Your task to perform on an android device: Add "macbook pro" to the cart on newegg.com, then select checkout. Image 0: 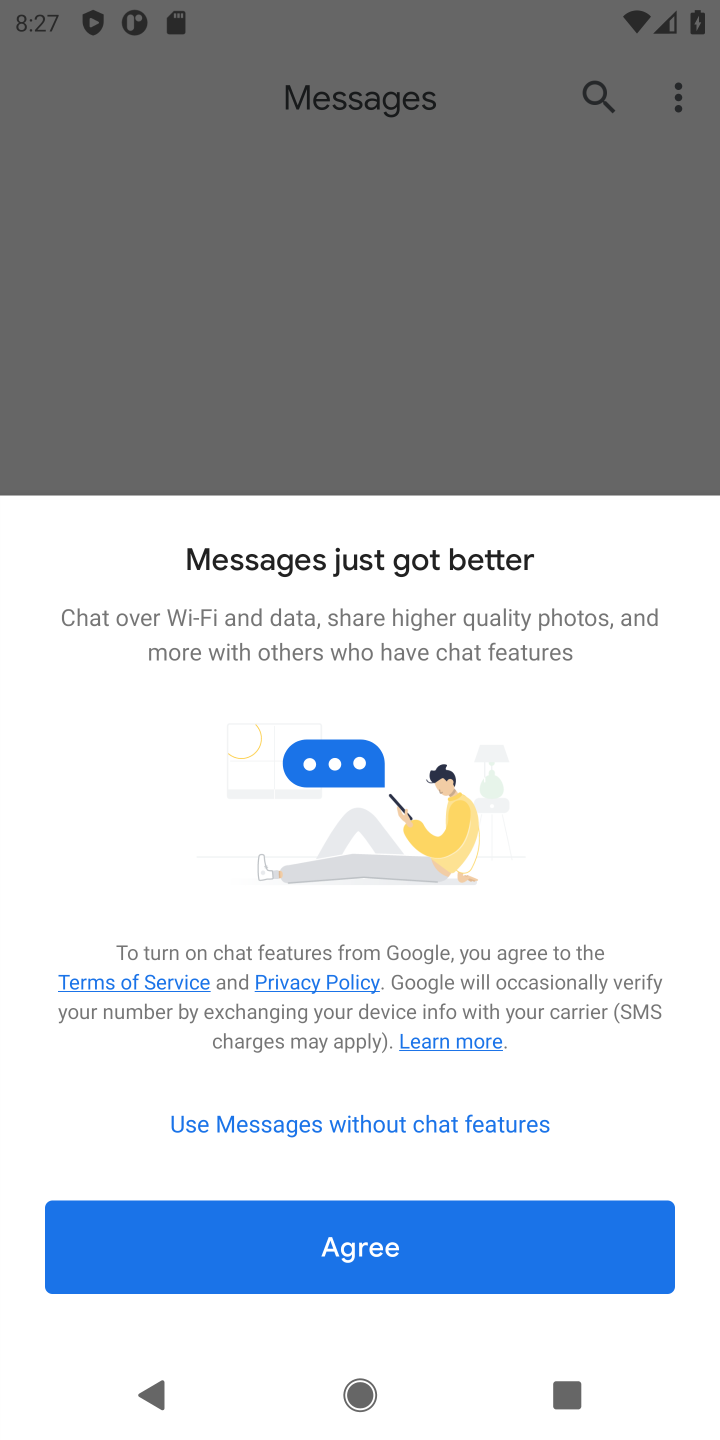
Step 0: press home button
Your task to perform on an android device: Add "macbook pro" to the cart on newegg.com, then select checkout. Image 1: 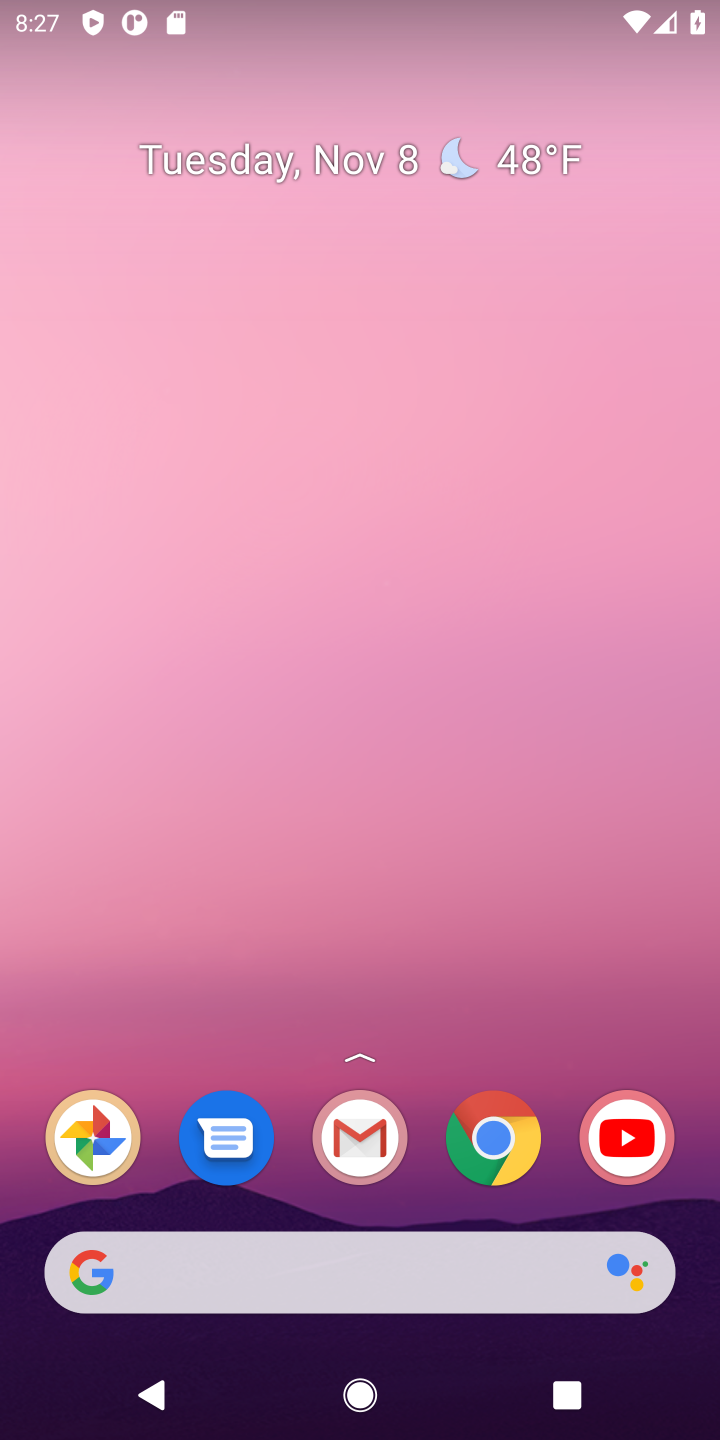
Step 1: click (476, 1133)
Your task to perform on an android device: Add "macbook pro" to the cart on newegg.com, then select checkout. Image 2: 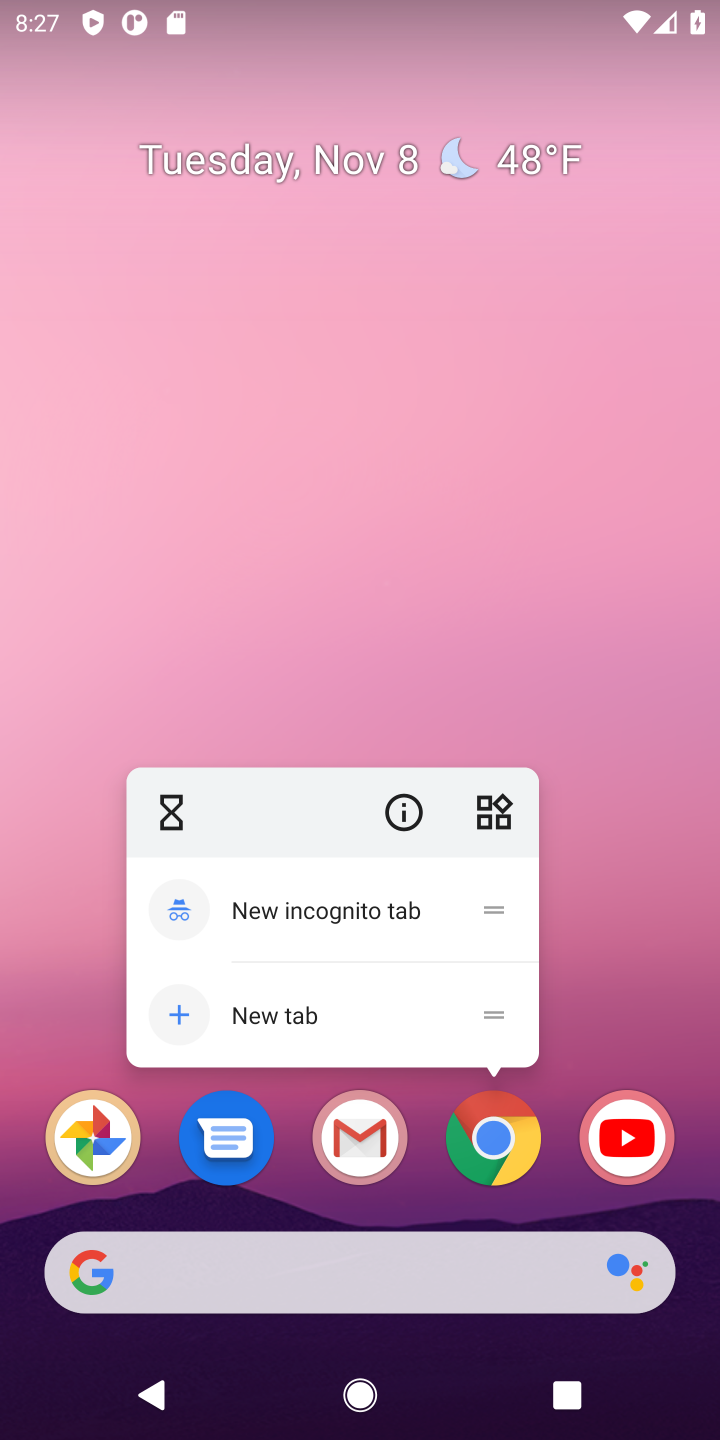
Step 2: click (476, 1131)
Your task to perform on an android device: Add "macbook pro" to the cart on newegg.com, then select checkout. Image 3: 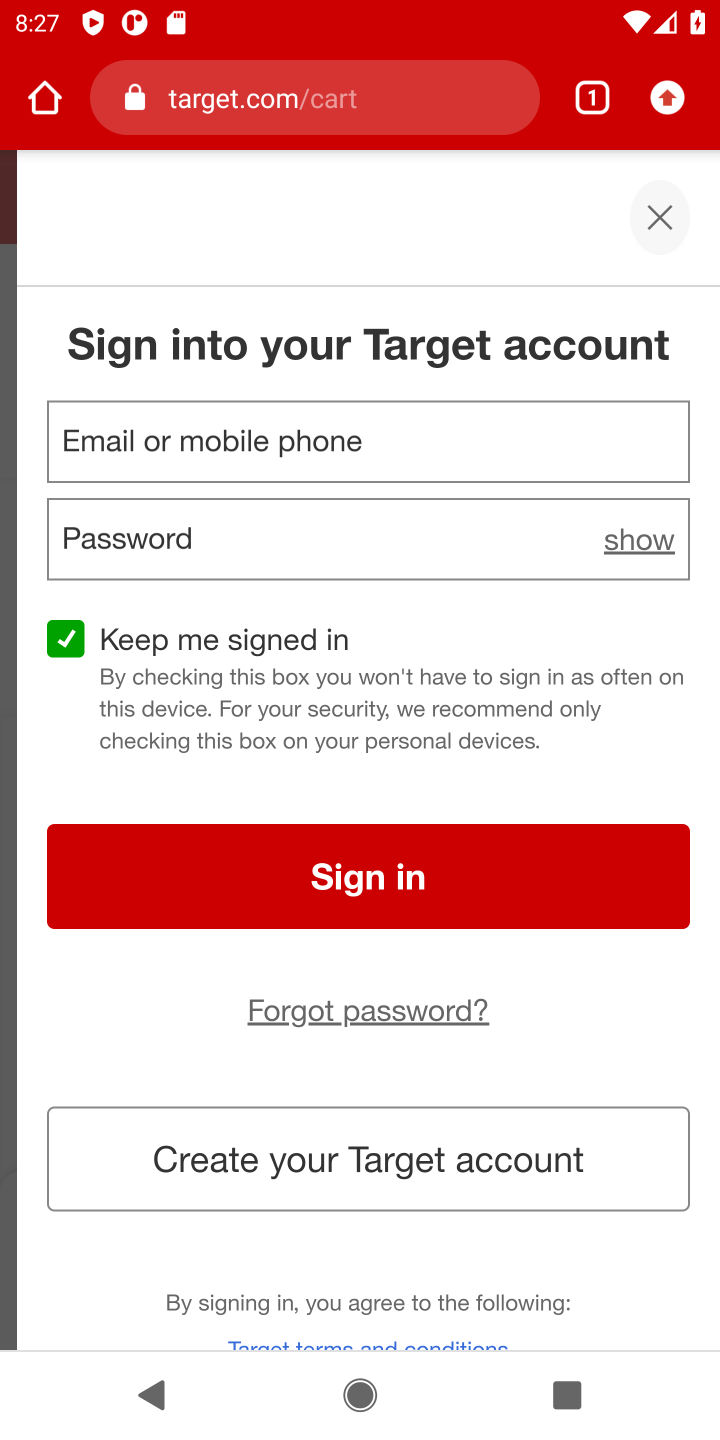
Step 3: click (389, 112)
Your task to perform on an android device: Add "macbook pro" to the cart on newegg.com, then select checkout. Image 4: 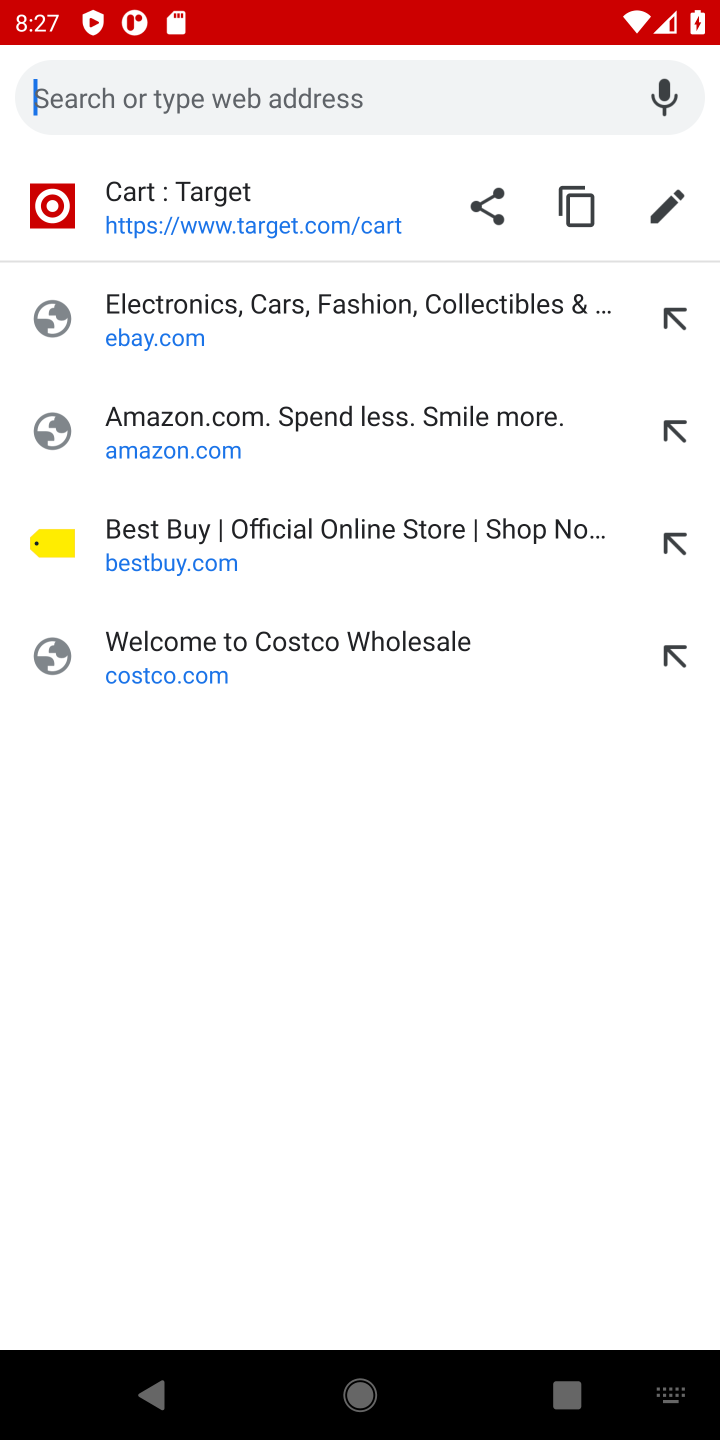
Step 4: type "newegg.com"
Your task to perform on an android device: Add "macbook pro" to the cart on newegg.com, then select checkout. Image 5: 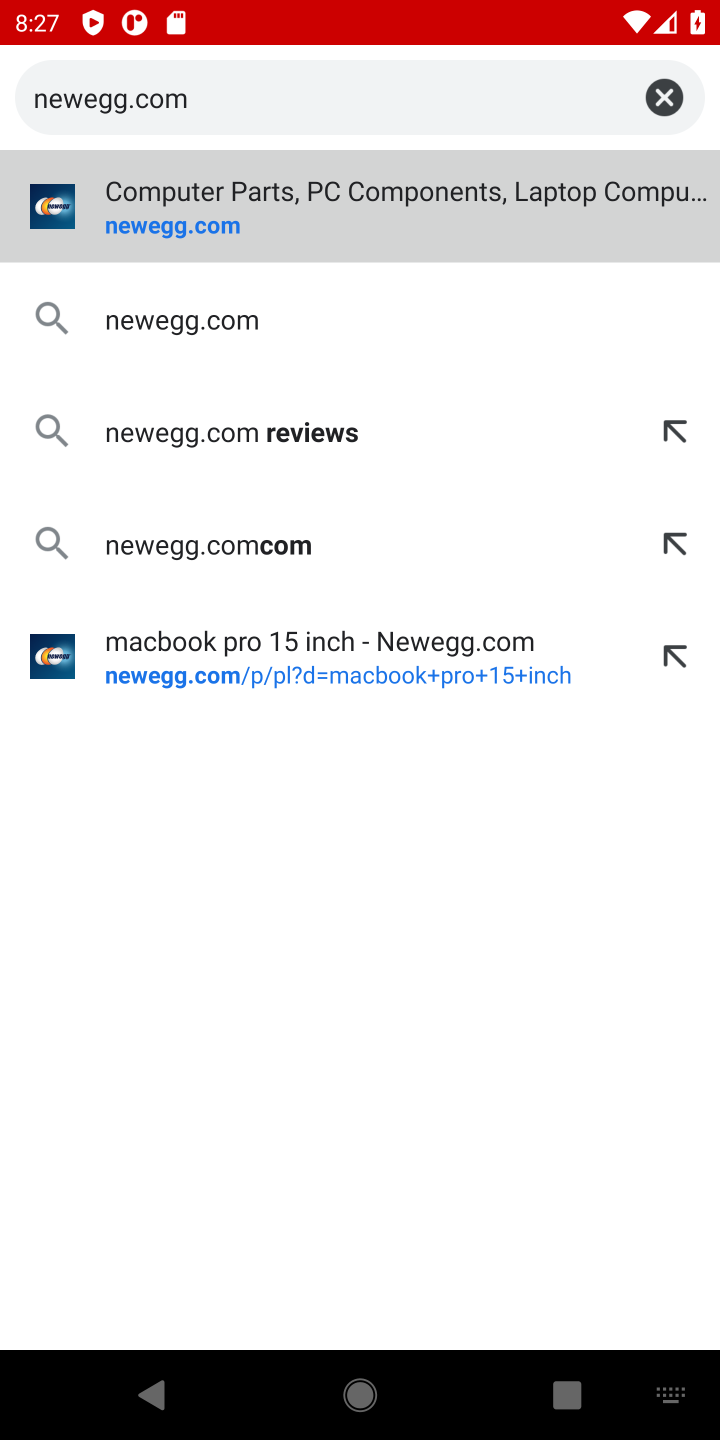
Step 5: press enter
Your task to perform on an android device: Add "macbook pro" to the cart on newegg.com, then select checkout. Image 6: 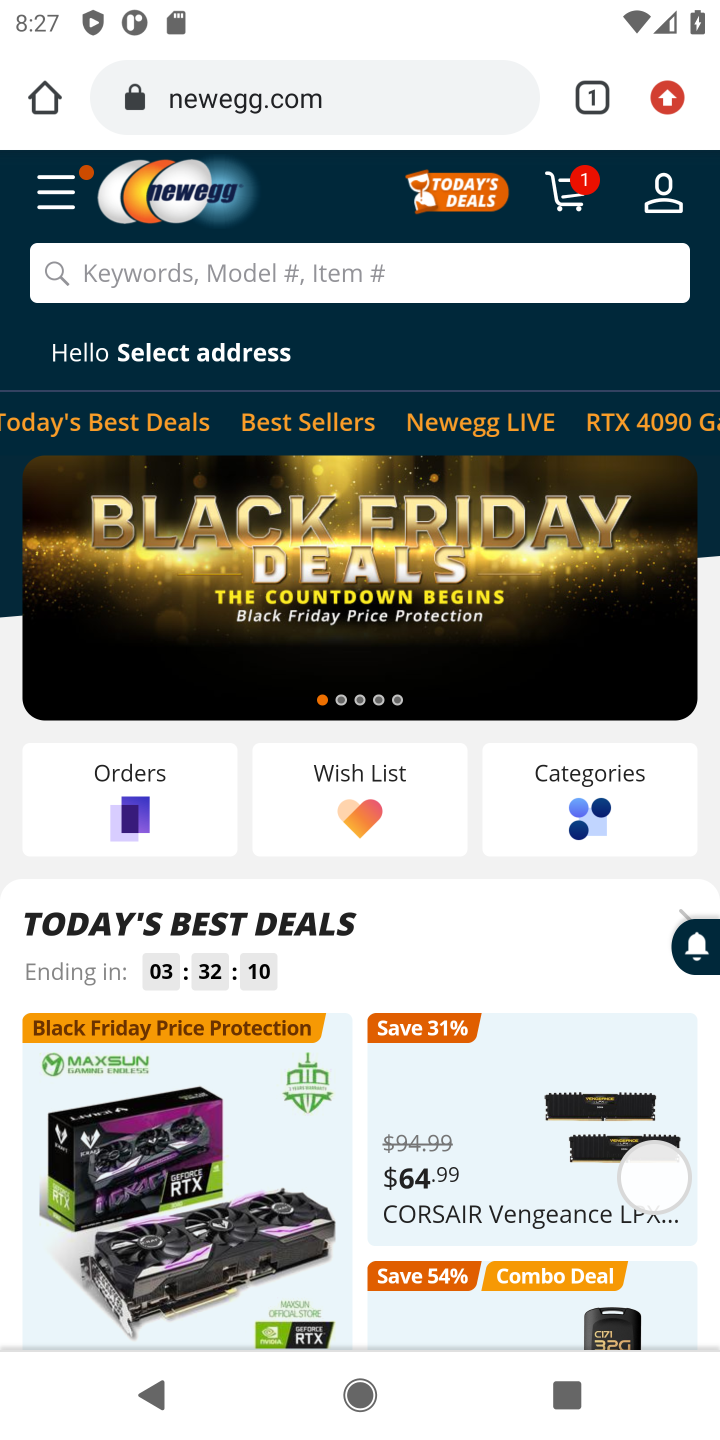
Step 6: click (407, 269)
Your task to perform on an android device: Add "macbook pro" to the cart on newegg.com, then select checkout. Image 7: 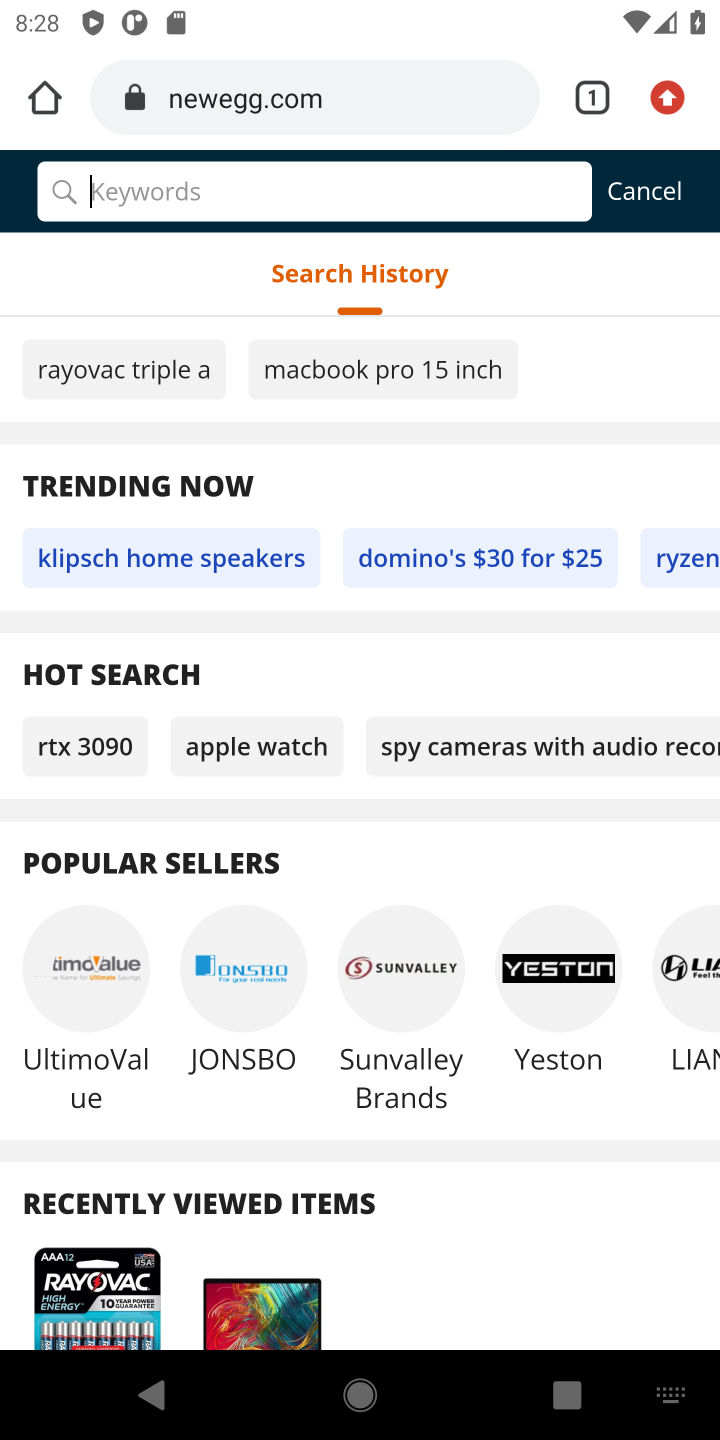
Step 7: type "macbook pro"
Your task to perform on an android device: Add "macbook pro" to the cart on newegg.com, then select checkout. Image 8: 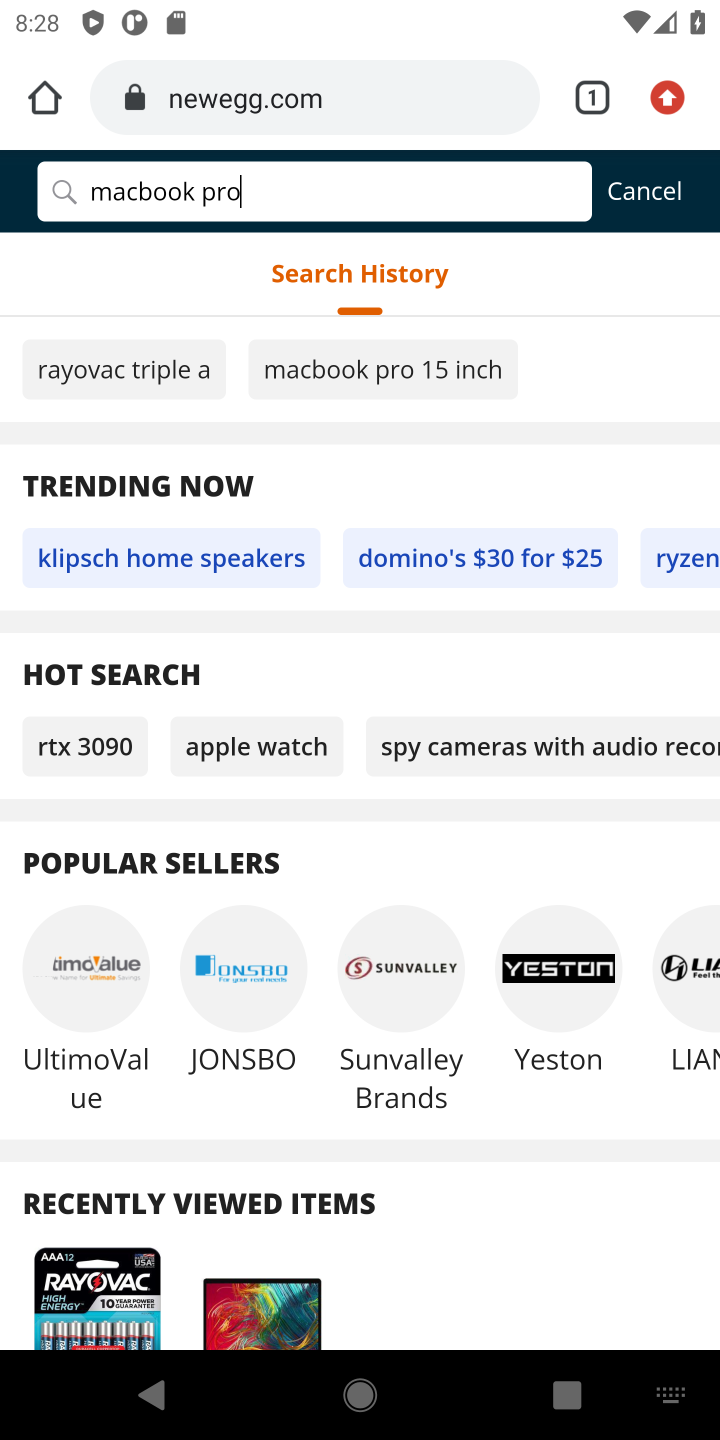
Step 8: press enter
Your task to perform on an android device: Add "macbook pro" to the cart on newegg.com, then select checkout. Image 9: 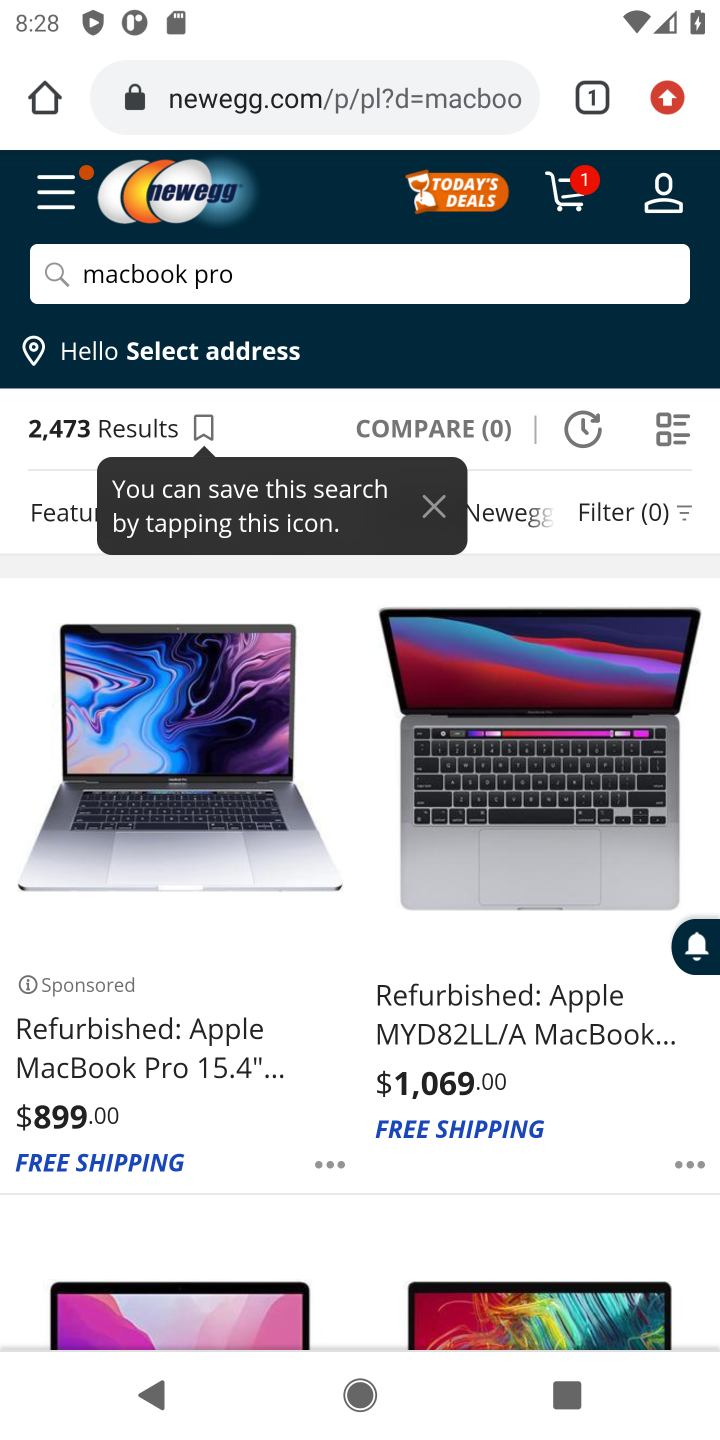
Step 9: click (109, 1044)
Your task to perform on an android device: Add "macbook pro" to the cart on newegg.com, then select checkout. Image 10: 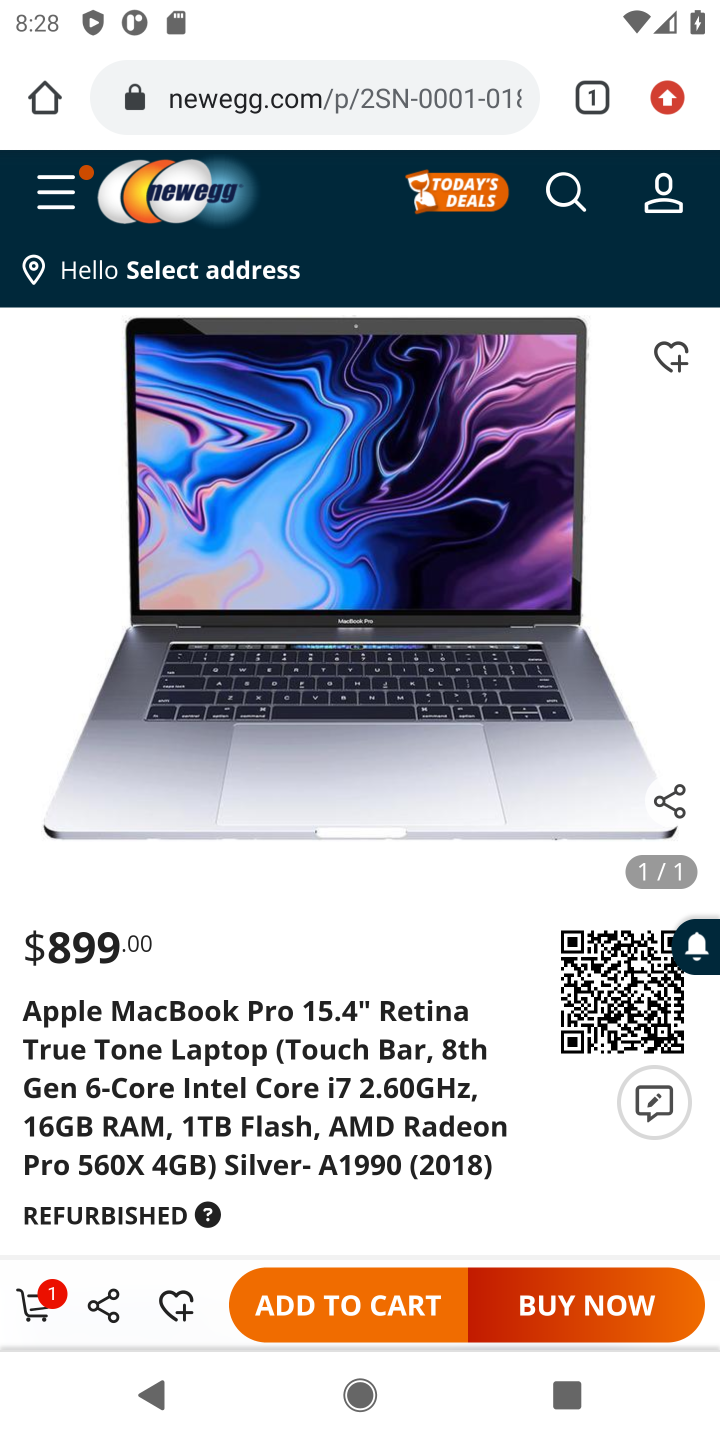
Step 10: click (369, 1293)
Your task to perform on an android device: Add "macbook pro" to the cart on newegg.com, then select checkout. Image 11: 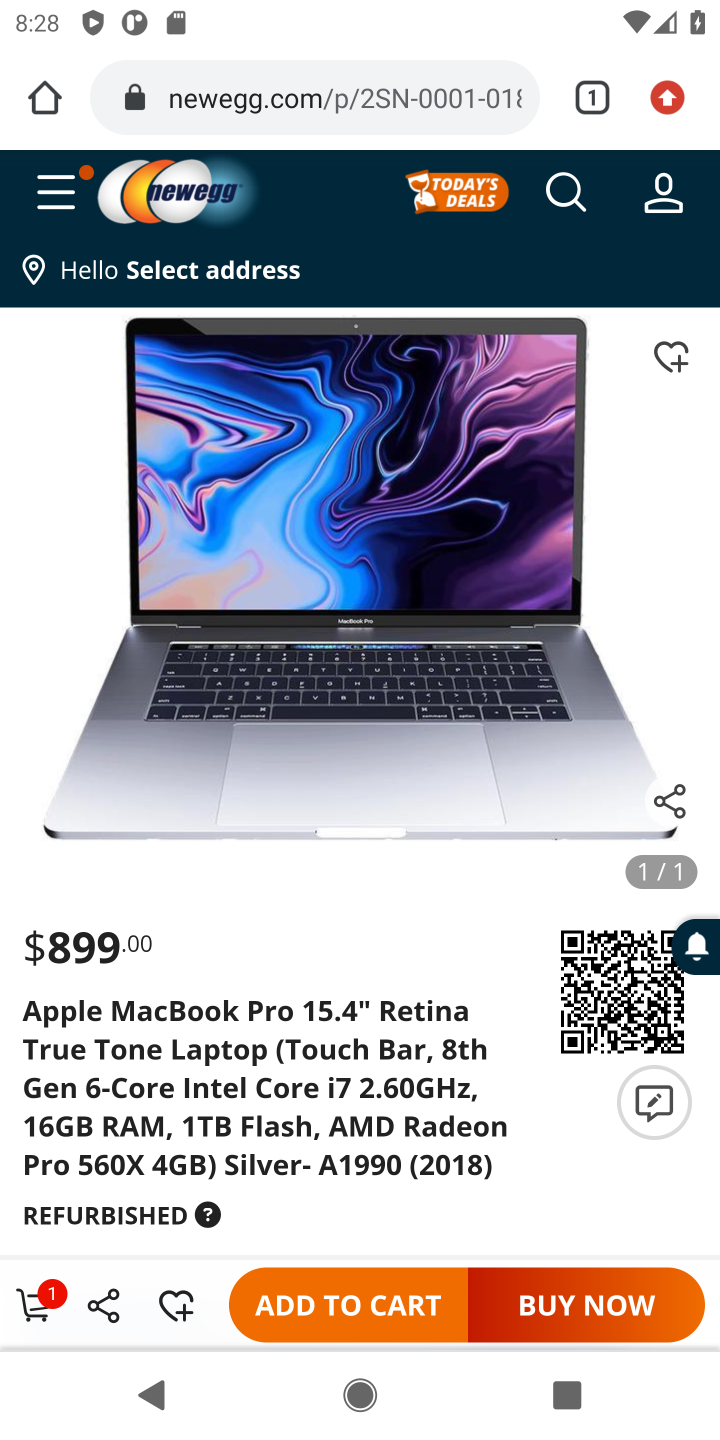
Step 11: click (338, 1296)
Your task to perform on an android device: Add "macbook pro" to the cart on newegg.com, then select checkout. Image 12: 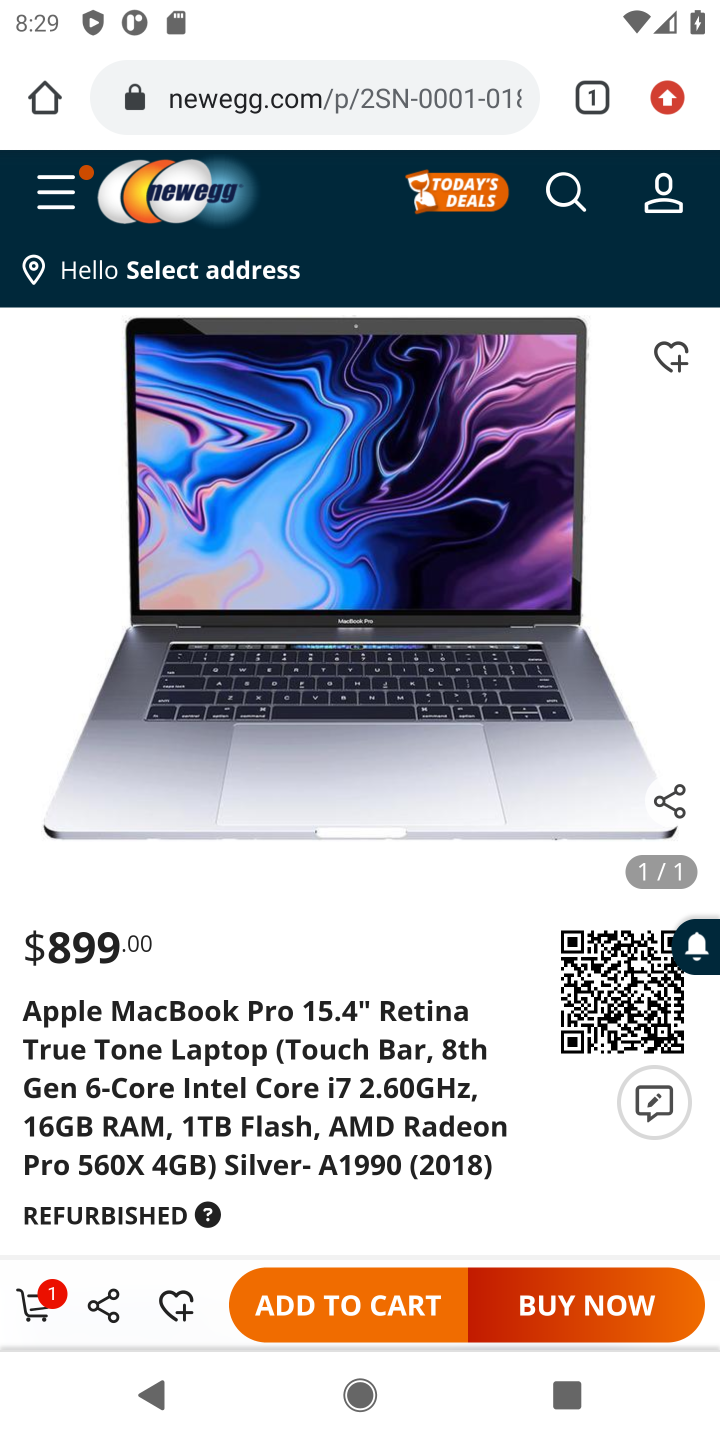
Step 12: click (325, 1307)
Your task to perform on an android device: Add "macbook pro" to the cart on newegg.com, then select checkout. Image 13: 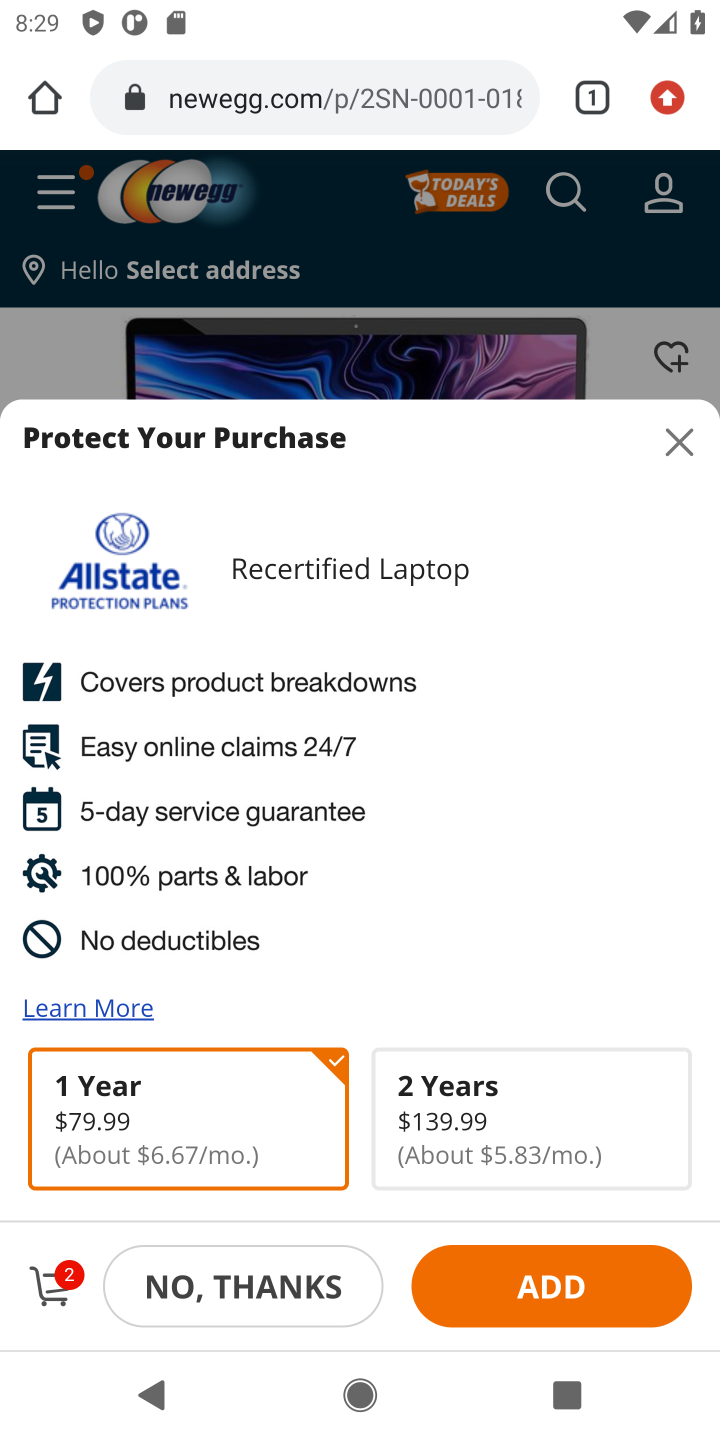
Step 13: click (59, 1277)
Your task to perform on an android device: Add "macbook pro" to the cart on newegg.com, then select checkout. Image 14: 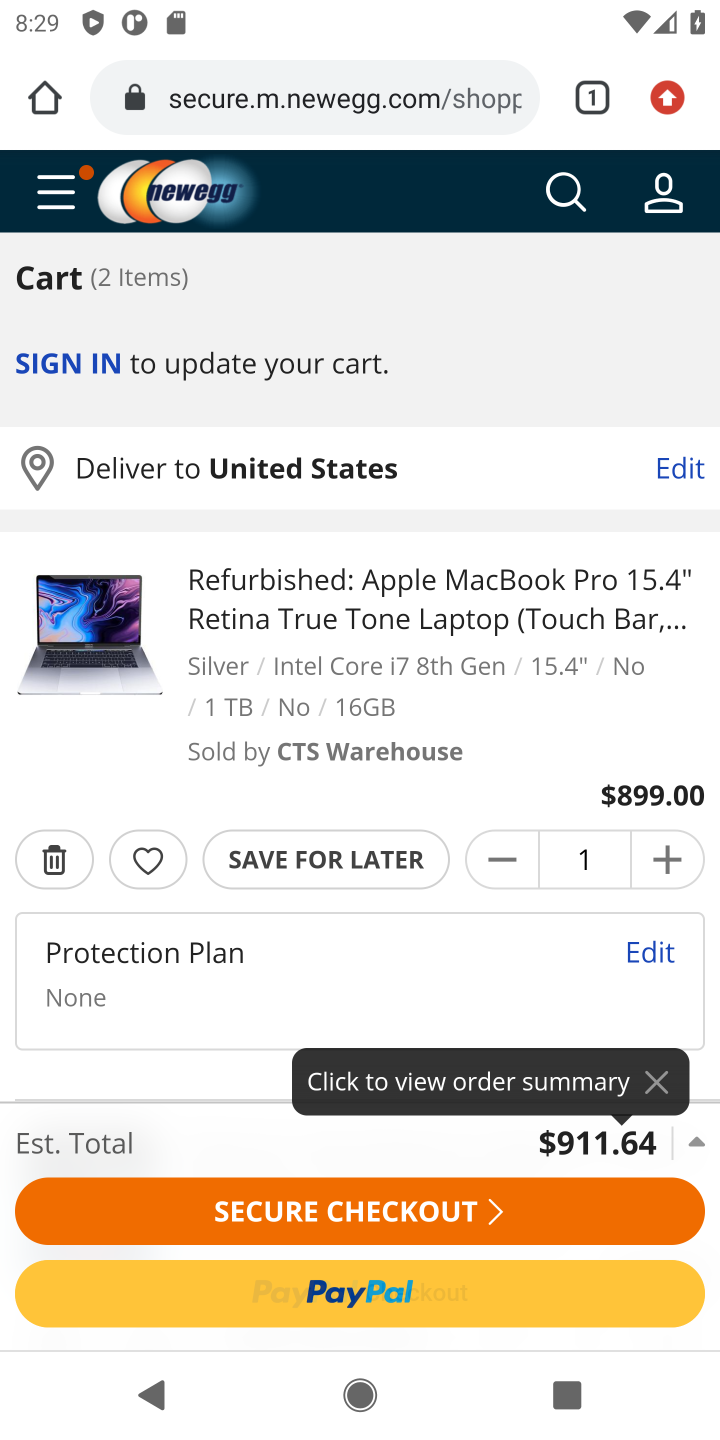
Step 14: drag from (302, 950) to (507, 430)
Your task to perform on an android device: Add "macbook pro" to the cart on newegg.com, then select checkout. Image 15: 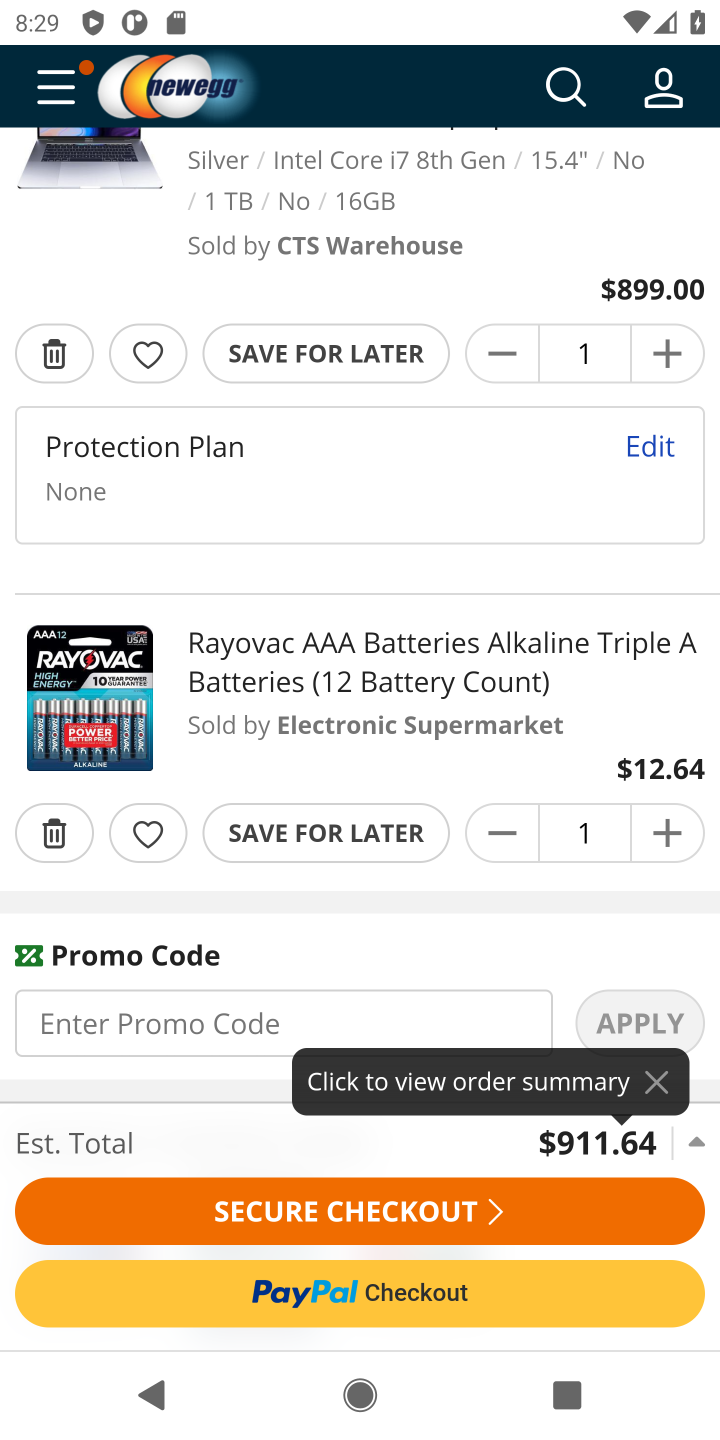
Step 15: click (48, 840)
Your task to perform on an android device: Add "macbook pro" to the cart on newegg.com, then select checkout. Image 16: 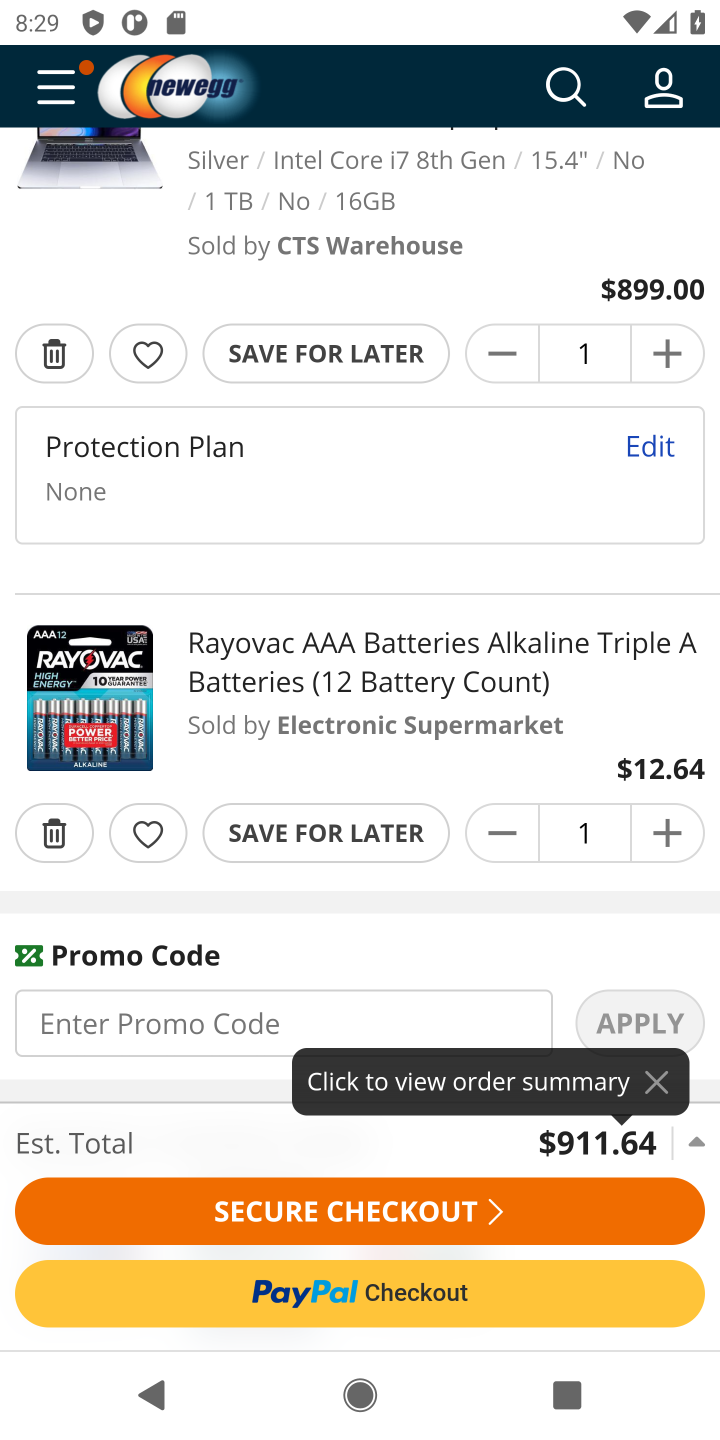
Step 16: click (395, 1213)
Your task to perform on an android device: Add "macbook pro" to the cart on newegg.com, then select checkout. Image 17: 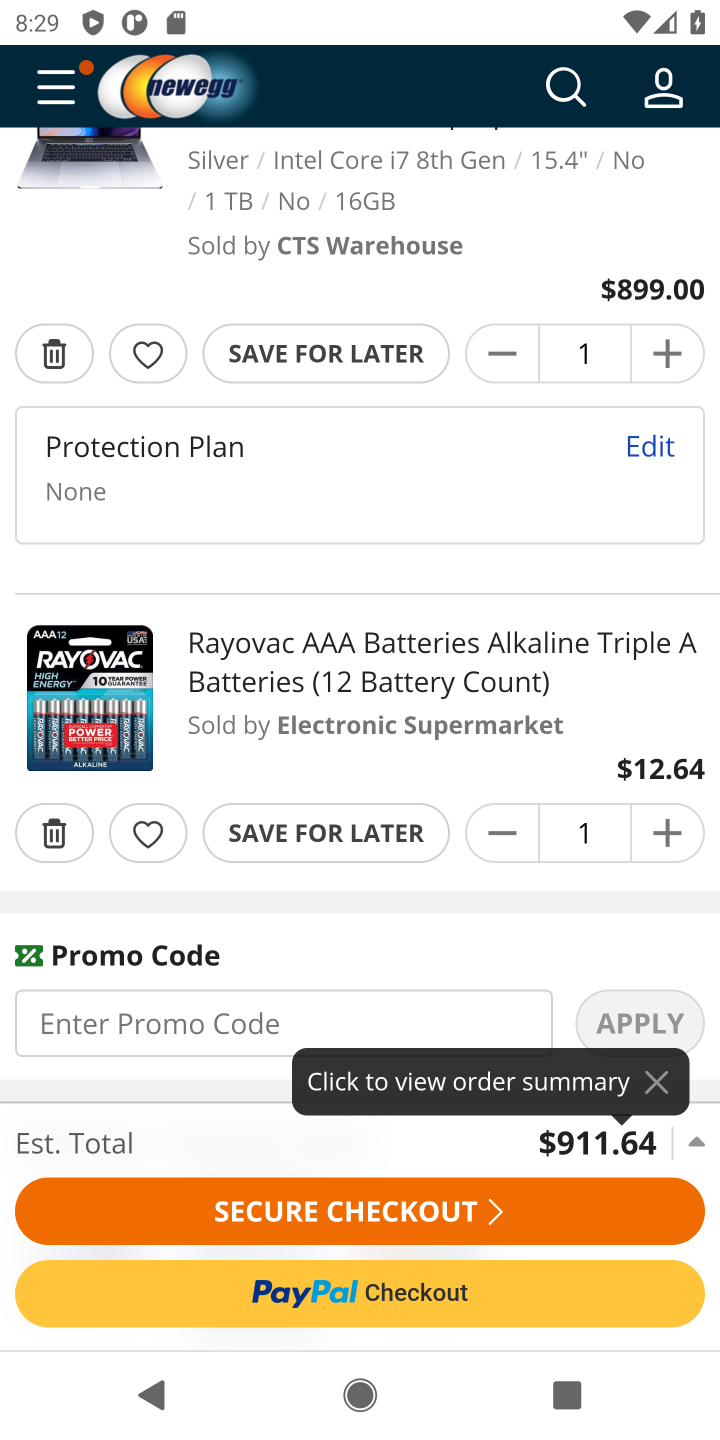
Step 17: click (53, 831)
Your task to perform on an android device: Add "macbook pro" to the cart on newegg.com, then select checkout. Image 18: 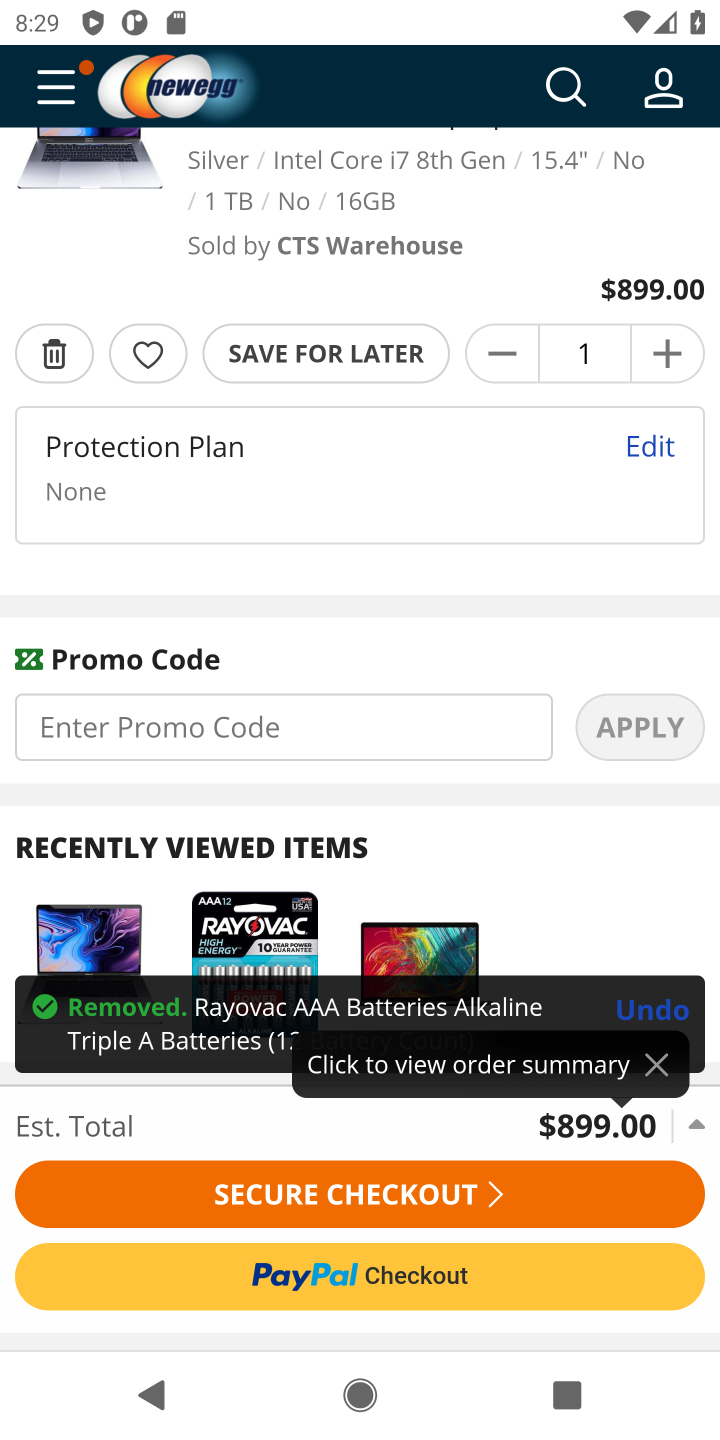
Step 18: click (422, 1182)
Your task to perform on an android device: Add "macbook pro" to the cart on newegg.com, then select checkout. Image 19: 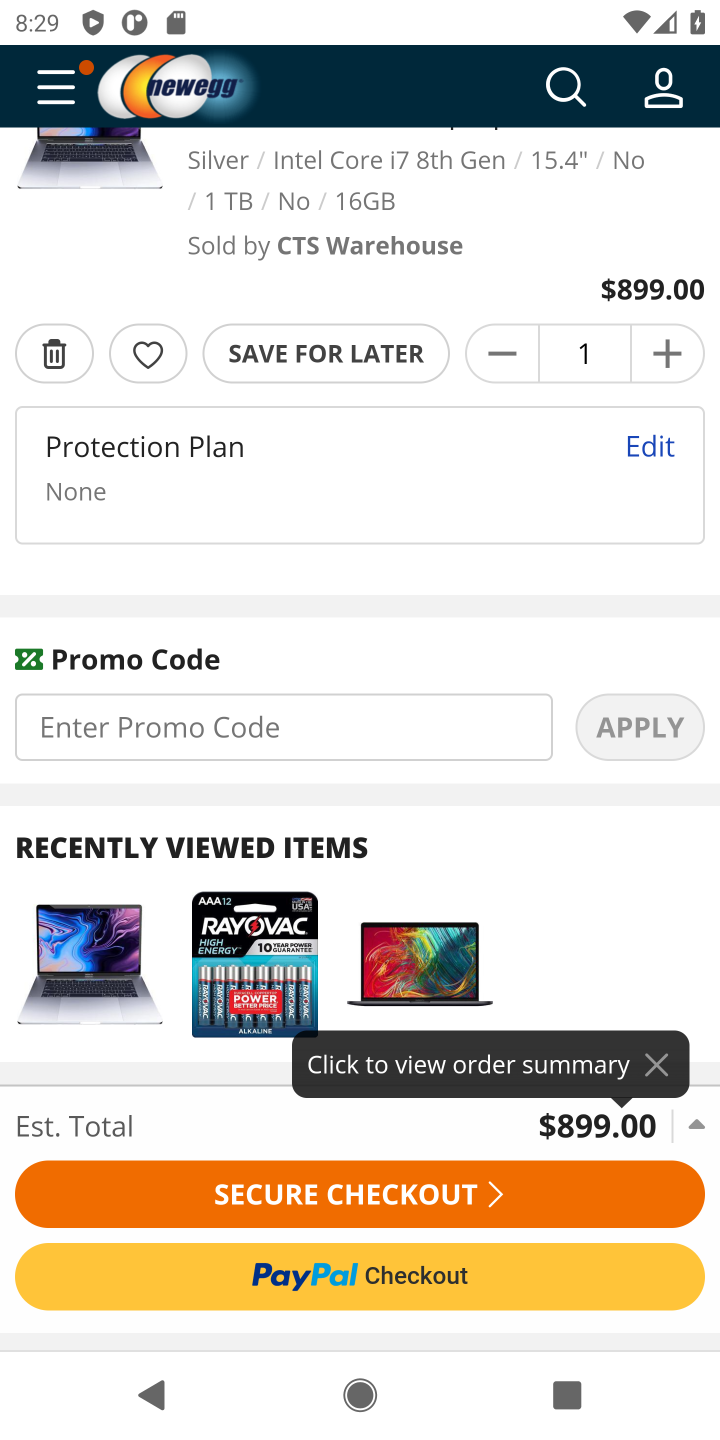
Step 19: click (411, 1195)
Your task to perform on an android device: Add "macbook pro" to the cart on newegg.com, then select checkout. Image 20: 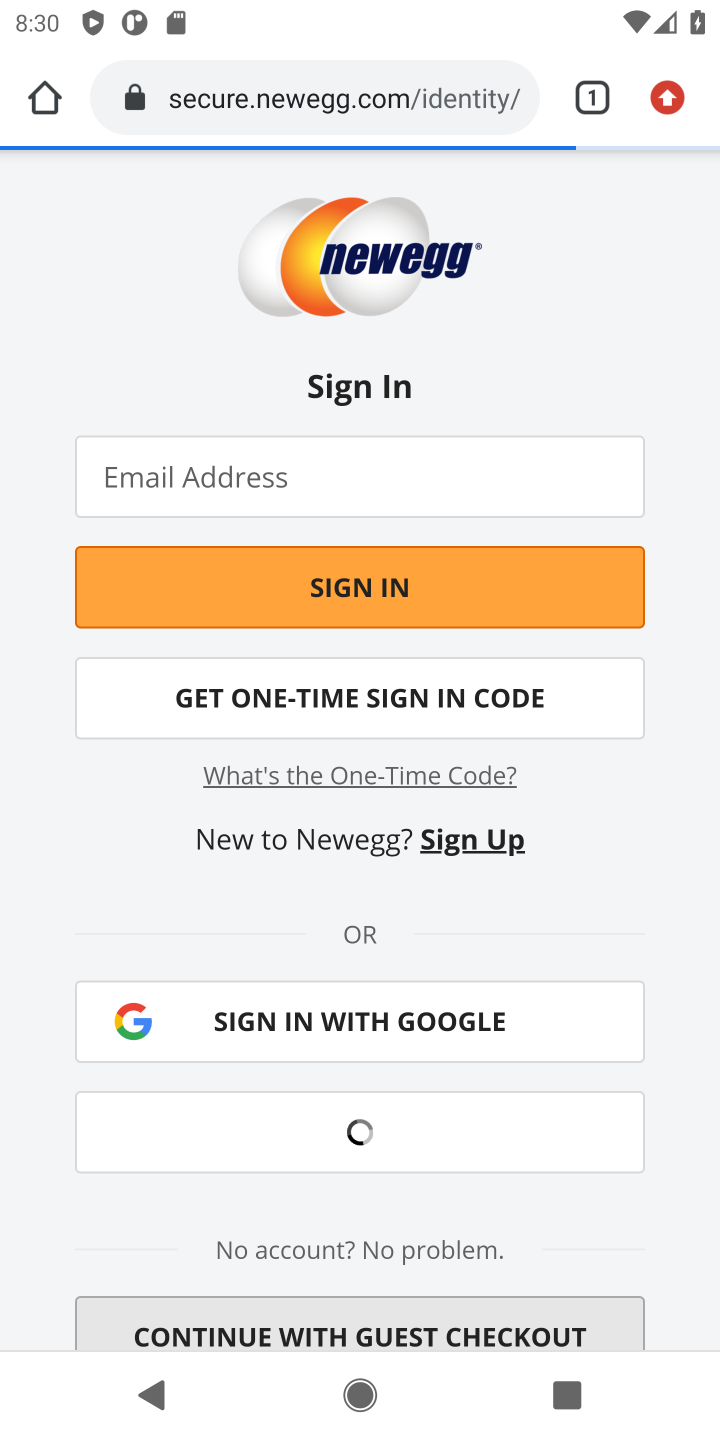
Step 20: task complete